Your task to perform on an android device: What's on my calendar today? Image 0: 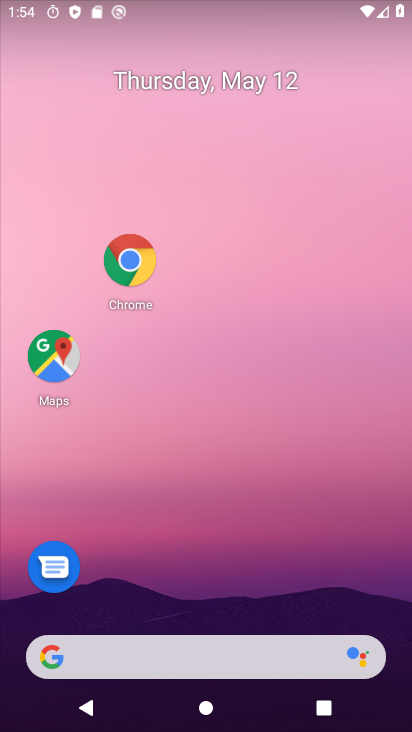
Step 0: drag from (186, 609) to (302, 194)
Your task to perform on an android device: What's on my calendar today? Image 1: 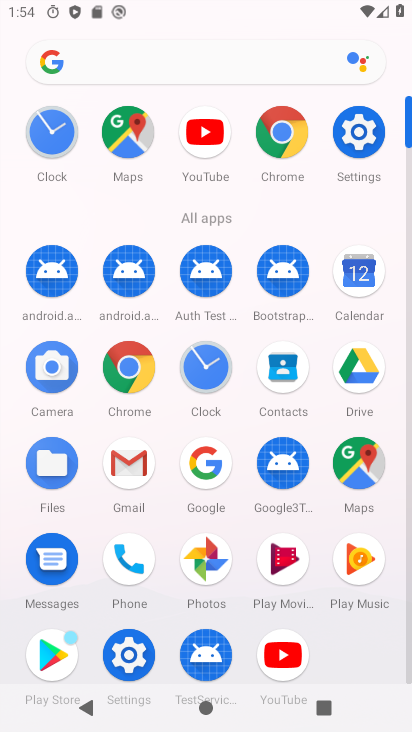
Step 1: click (357, 277)
Your task to perform on an android device: What's on my calendar today? Image 2: 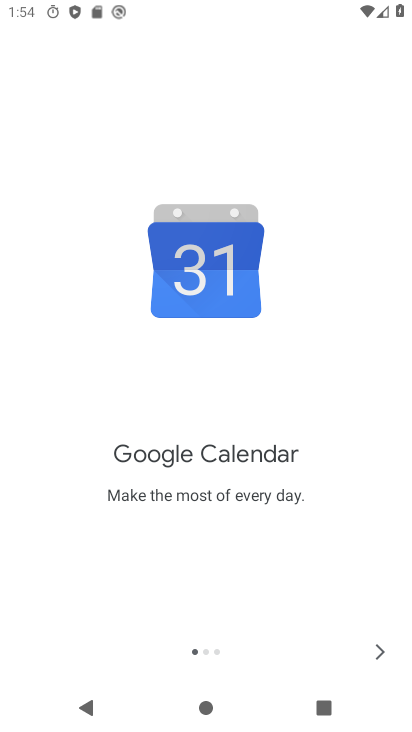
Step 2: click (376, 654)
Your task to perform on an android device: What's on my calendar today? Image 3: 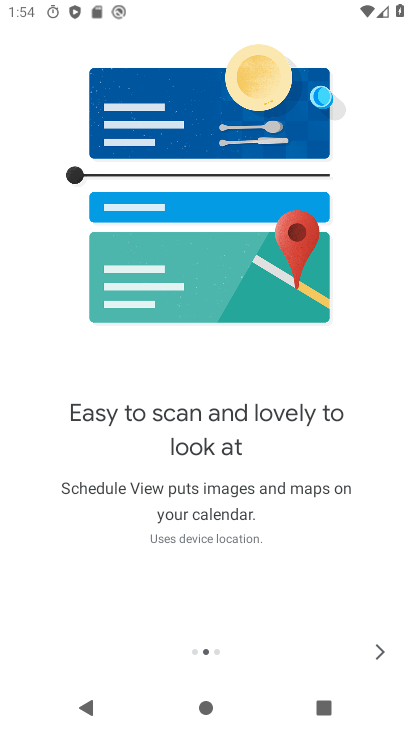
Step 3: click (372, 655)
Your task to perform on an android device: What's on my calendar today? Image 4: 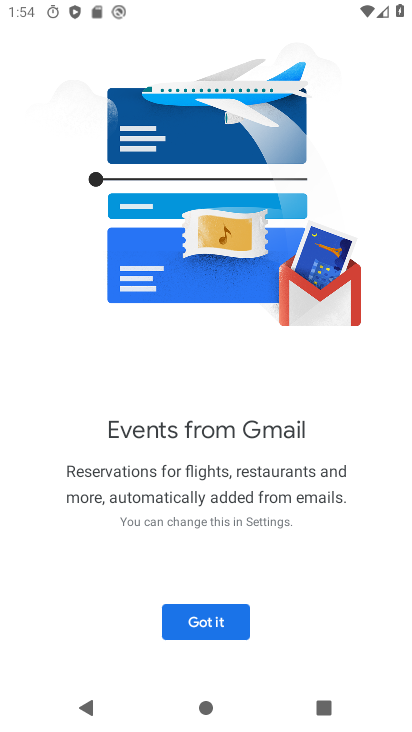
Step 4: click (212, 616)
Your task to perform on an android device: What's on my calendar today? Image 5: 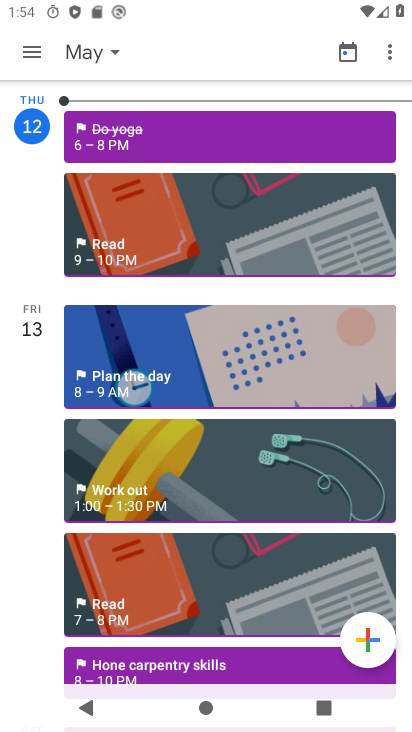
Step 5: drag from (161, 176) to (173, 421)
Your task to perform on an android device: What's on my calendar today? Image 6: 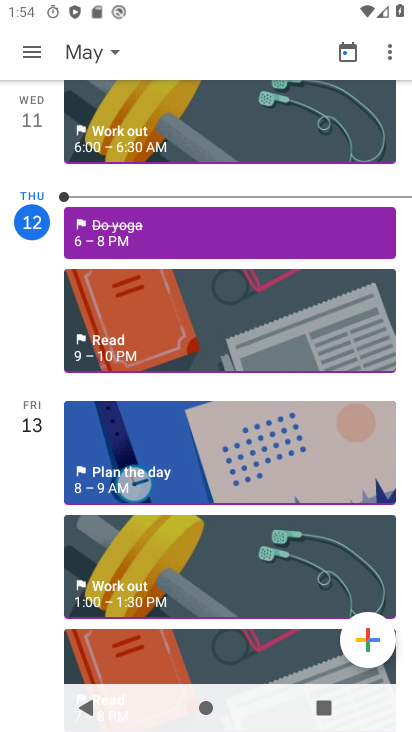
Step 6: click (142, 344)
Your task to perform on an android device: What's on my calendar today? Image 7: 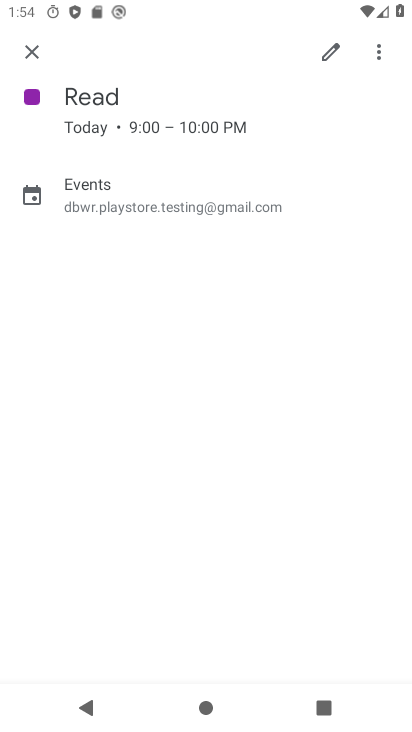
Step 7: task complete